Your task to perform on an android device: turn off data saver in the chrome app Image 0: 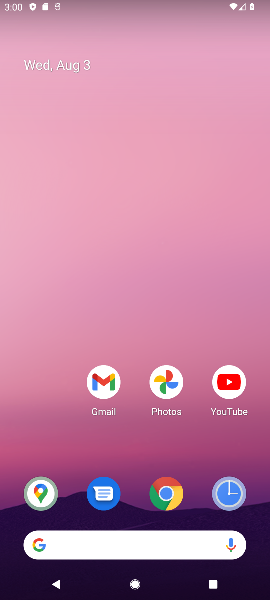
Step 0: drag from (202, 470) to (268, 50)
Your task to perform on an android device: turn off data saver in the chrome app Image 1: 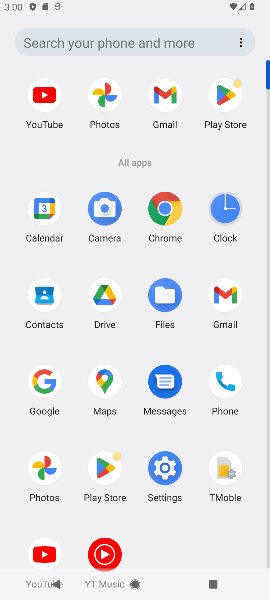
Step 1: click (170, 206)
Your task to perform on an android device: turn off data saver in the chrome app Image 2: 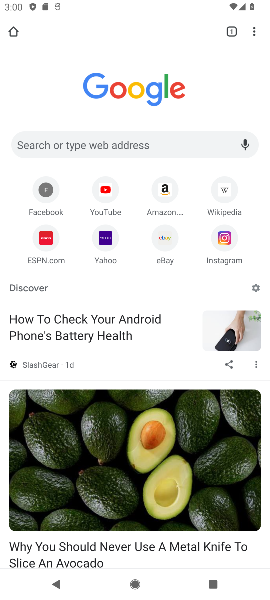
Step 2: drag from (258, 33) to (178, 270)
Your task to perform on an android device: turn off data saver in the chrome app Image 3: 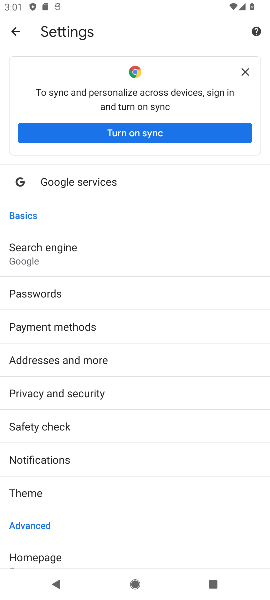
Step 3: drag from (69, 483) to (107, 193)
Your task to perform on an android device: turn off data saver in the chrome app Image 4: 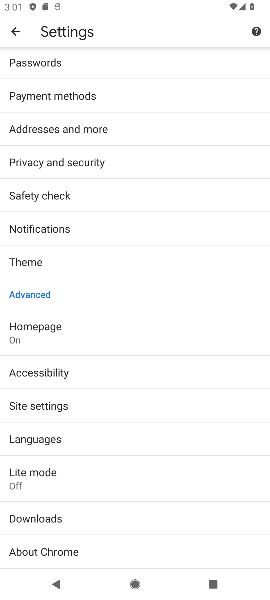
Step 4: click (71, 474)
Your task to perform on an android device: turn off data saver in the chrome app Image 5: 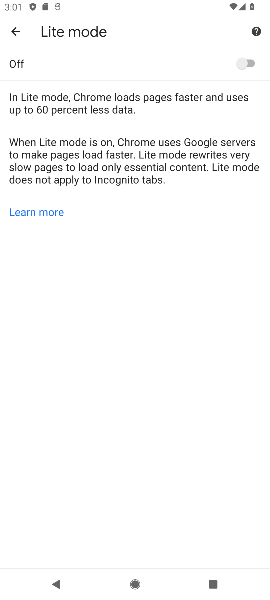
Step 5: task complete